Your task to perform on an android device: star an email in the gmail app Image 0: 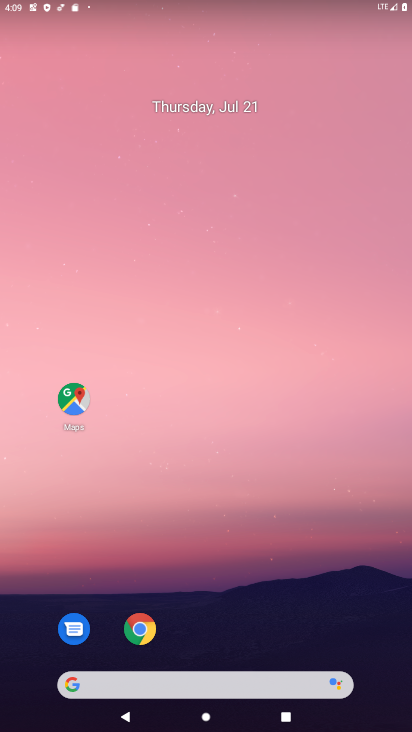
Step 0: drag from (299, 592) to (224, 145)
Your task to perform on an android device: star an email in the gmail app Image 1: 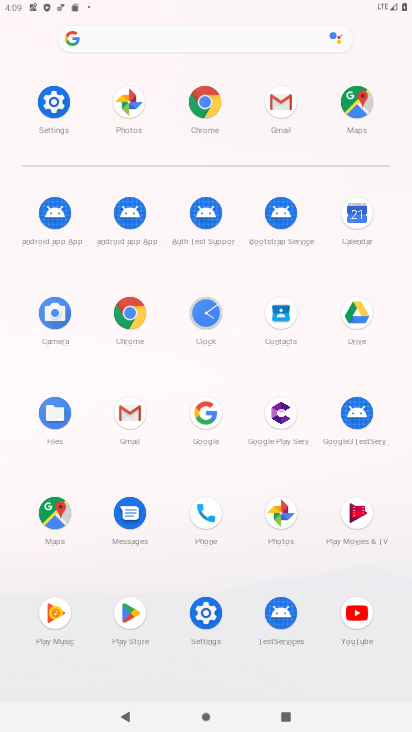
Step 1: click (287, 116)
Your task to perform on an android device: star an email in the gmail app Image 2: 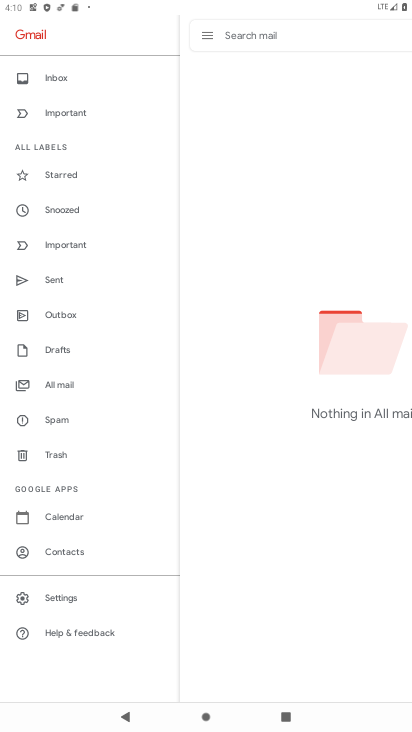
Step 2: click (100, 380)
Your task to perform on an android device: star an email in the gmail app Image 3: 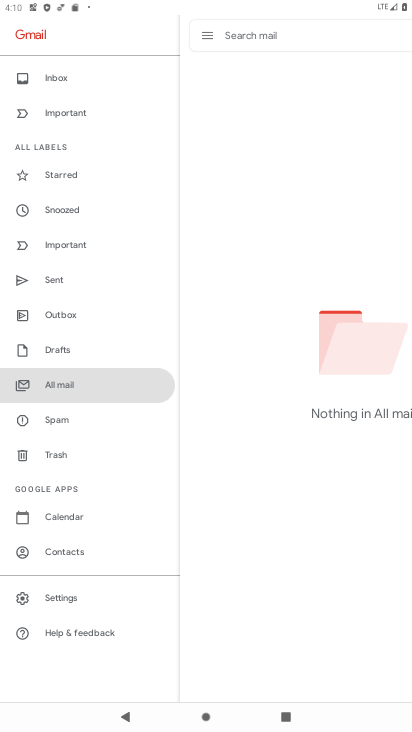
Step 3: task complete